Your task to perform on an android device: visit the assistant section in the google photos Image 0: 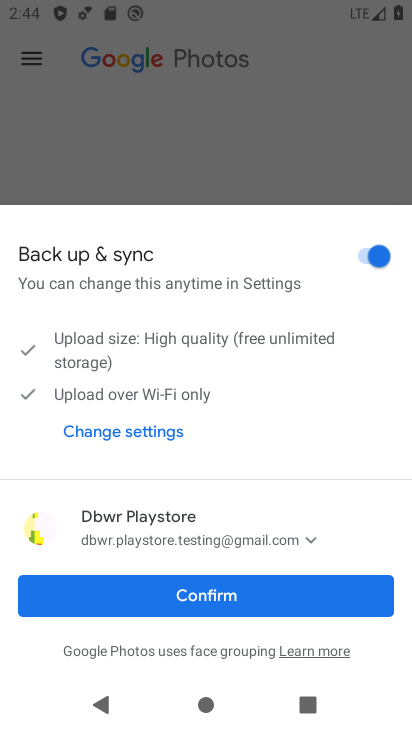
Step 0: press home button
Your task to perform on an android device: visit the assistant section in the google photos Image 1: 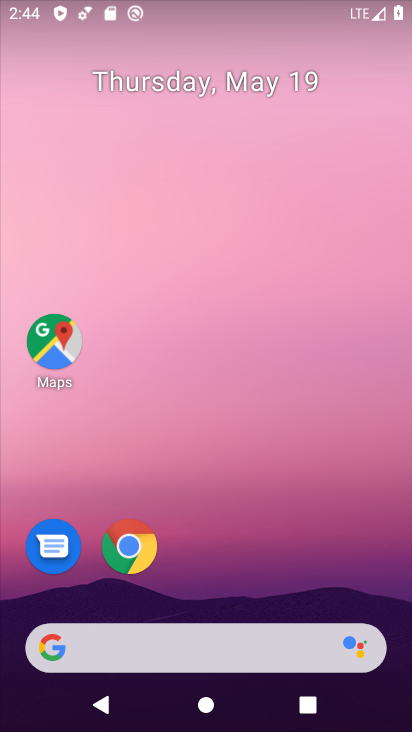
Step 1: drag from (115, 641) to (356, 131)
Your task to perform on an android device: visit the assistant section in the google photos Image 2: 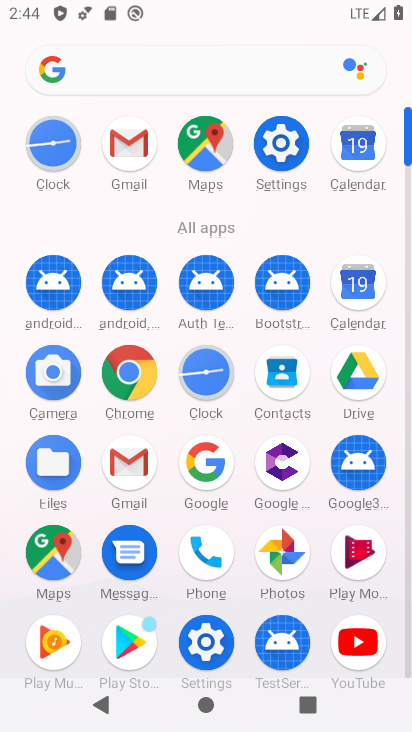
Step 2: click (272, 557)
Your task to perform on an android device: visit the assistant section in the google photos Image 3: 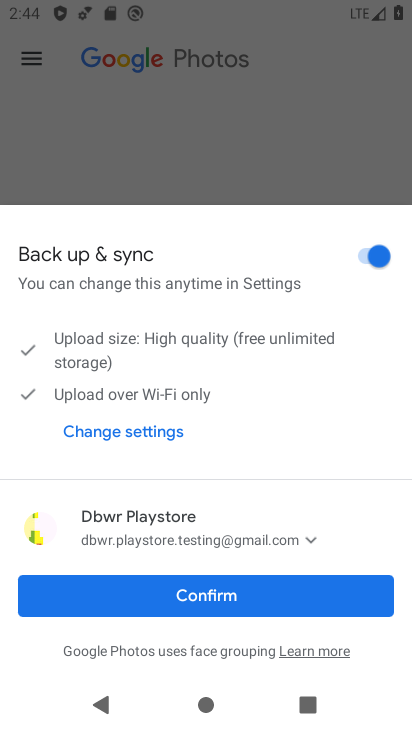
Step 3: click (225, 598)
Your task to perform on an android device: visit the assistant section in the google photos Image 4: 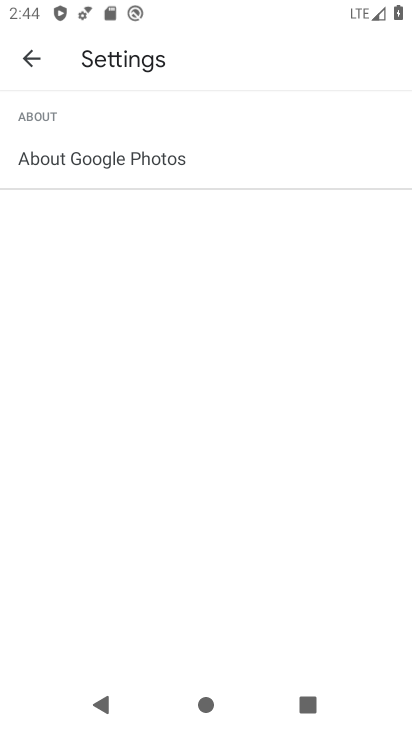
Step 4: click (30, 58)
Your task to perform on an android device: visit the assistant section in the google photos Image 5: 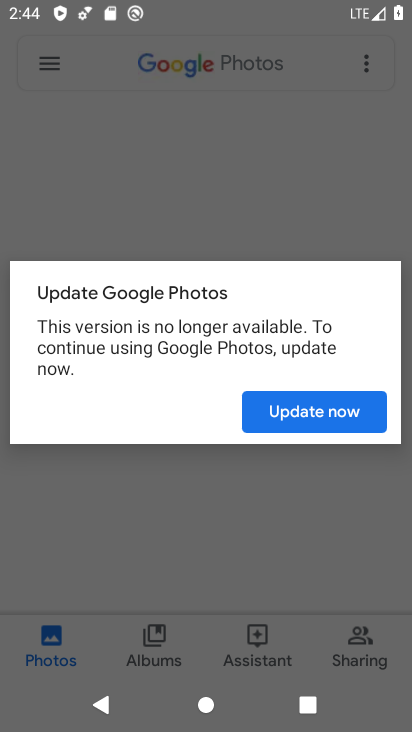
Step 5: click (331, 416)
Your task to perform on an android device: visit the assistant section in the google photos Image 6: 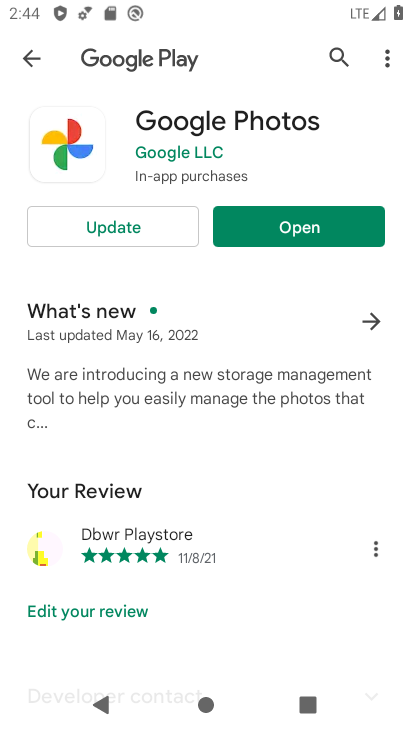
Step 6: click (316, 229)
Your task to perform on an android device: visit the assistant section in the google photos Image 7: 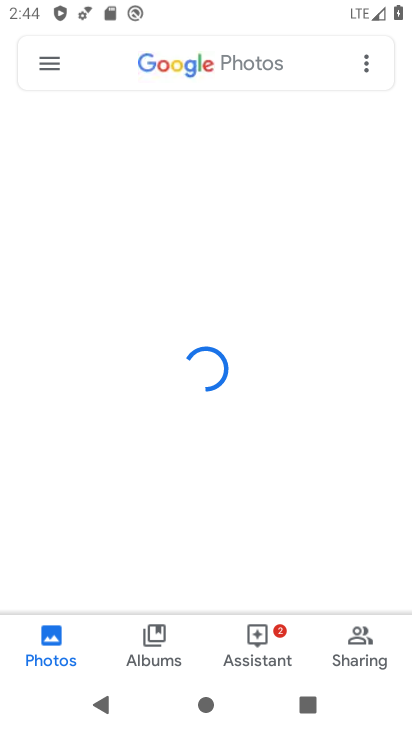
Step 7: click (273, 649)
Your task to perform on an android device: visit the assistant section in the google photos Image 8: 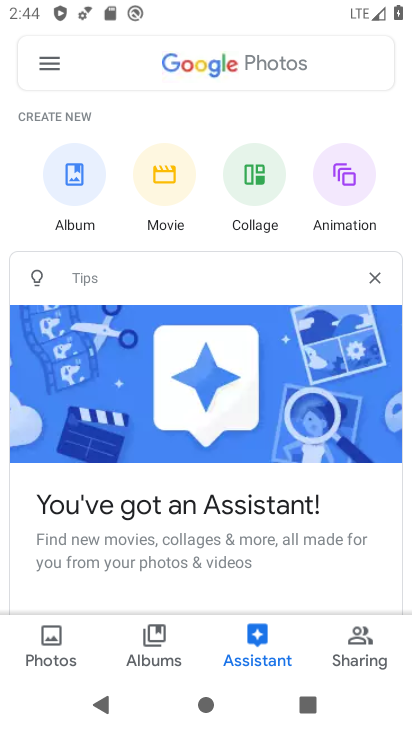
Step 8: task complete